Your task to perform on an android device: Search for vegetarian restaurants on Maps Image 0: 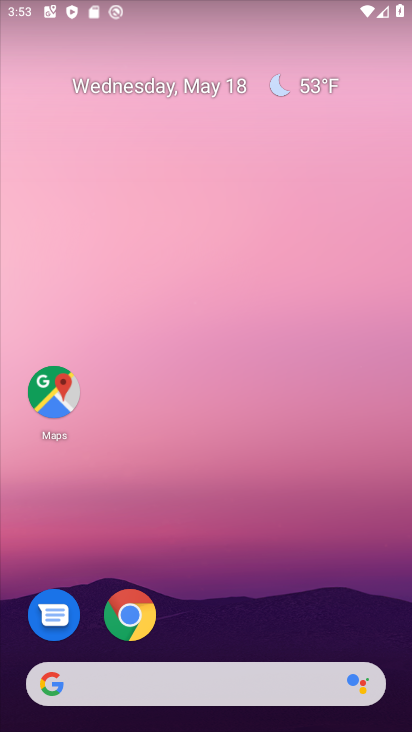
Step 0: drag from (286, 428) to (303, 37)
Your task to perform on an android device: Search for vegetarian restaurants on Maps Image 1: 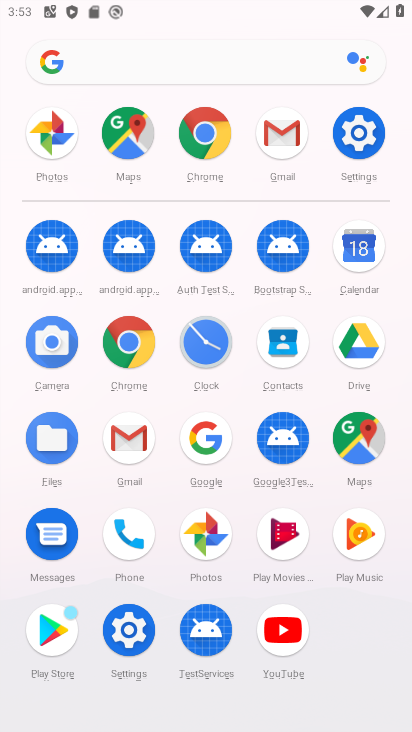
Step 1: click (347, 447)
Your task to perform on an android device: Search for vegetarian restaurants on Maps Image 2: 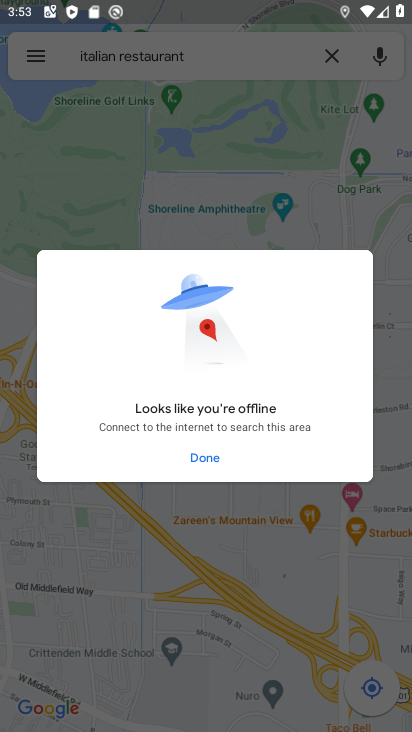
Step 2: click (208, 470)
Your task to perform on an android device: Search for vegetarian restaurants on Maps Image 3: 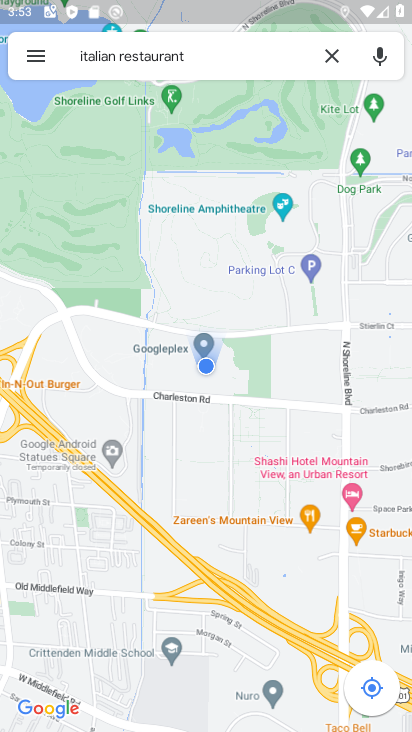
Step 3: click (221, 61)
Your task to perform on an android device: Search for vegetarian restaurants on Maps Image 4: 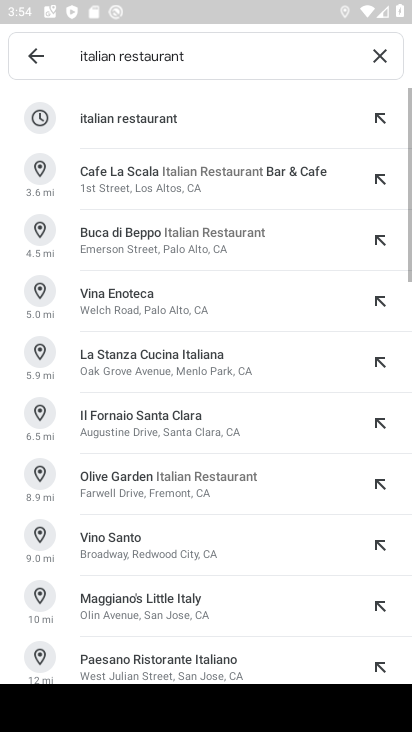
Step 4: click (382, 58)
Your task to perform on an android device: Search for vegetarian restaurants on Maps Image 5: 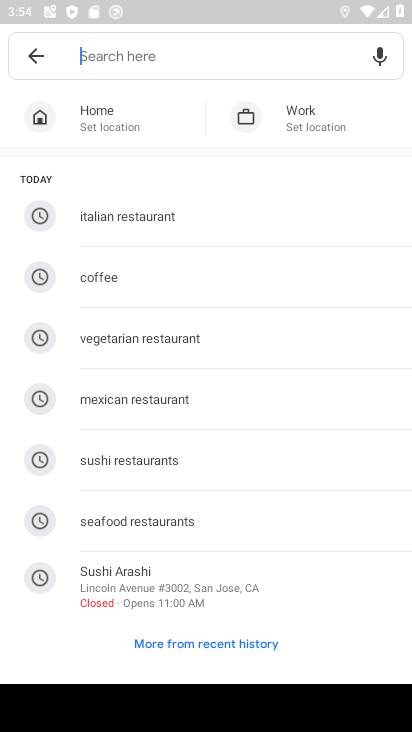
Step 5: type "vegetarian restaurants"
Your task to perform on an android device: Search for vegetarian restaurants on Maps Image 6: 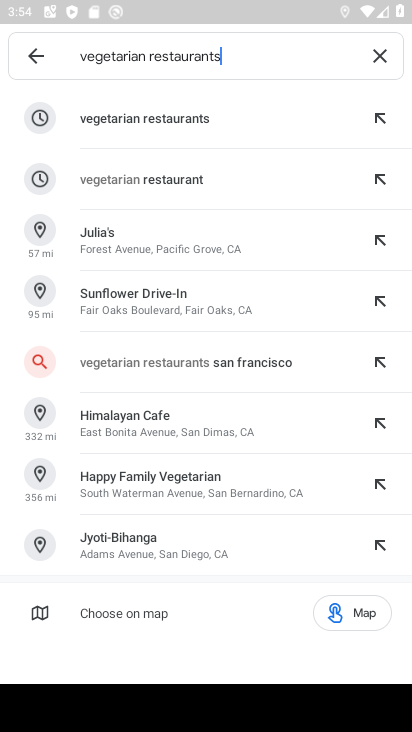
Step 6: click (206, 113)
Your task to perform on an android device: Search for vegetarian restaurants on Maps Image 7: 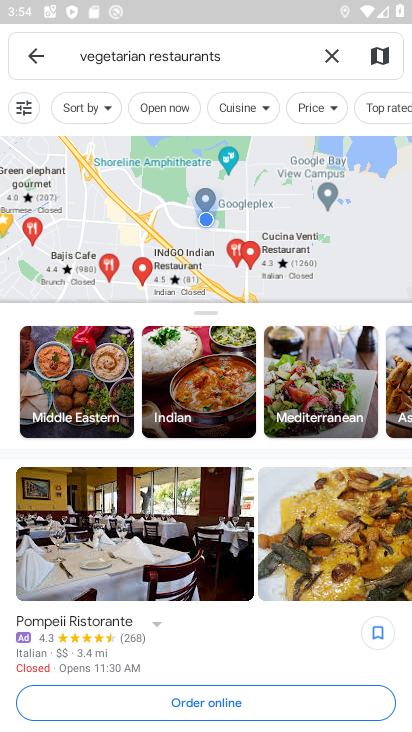
Step 7: task complete